Your task to perform on an android device: add a contact in the contacts app Image 0: 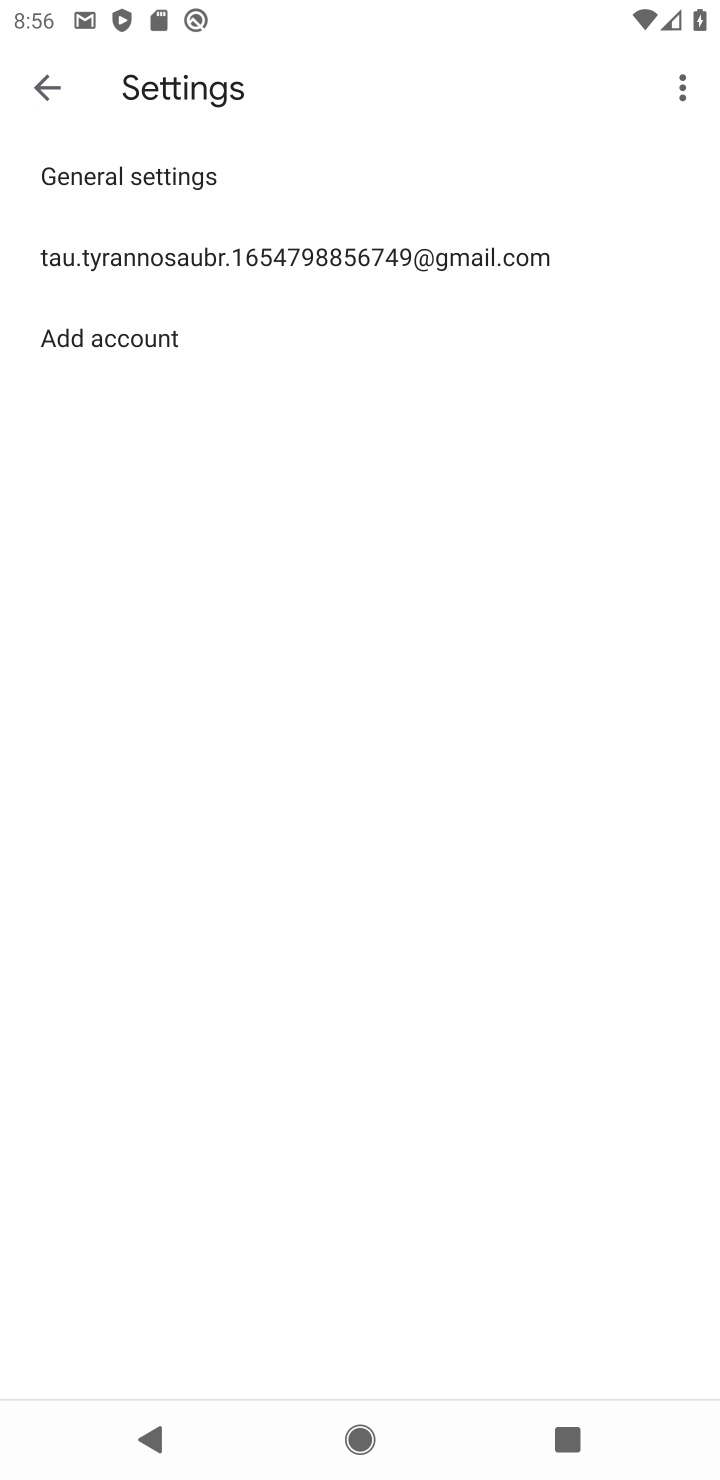
Step 0: press home button
Your task to perform on an android device: add a contact in the contacts app Image 1: 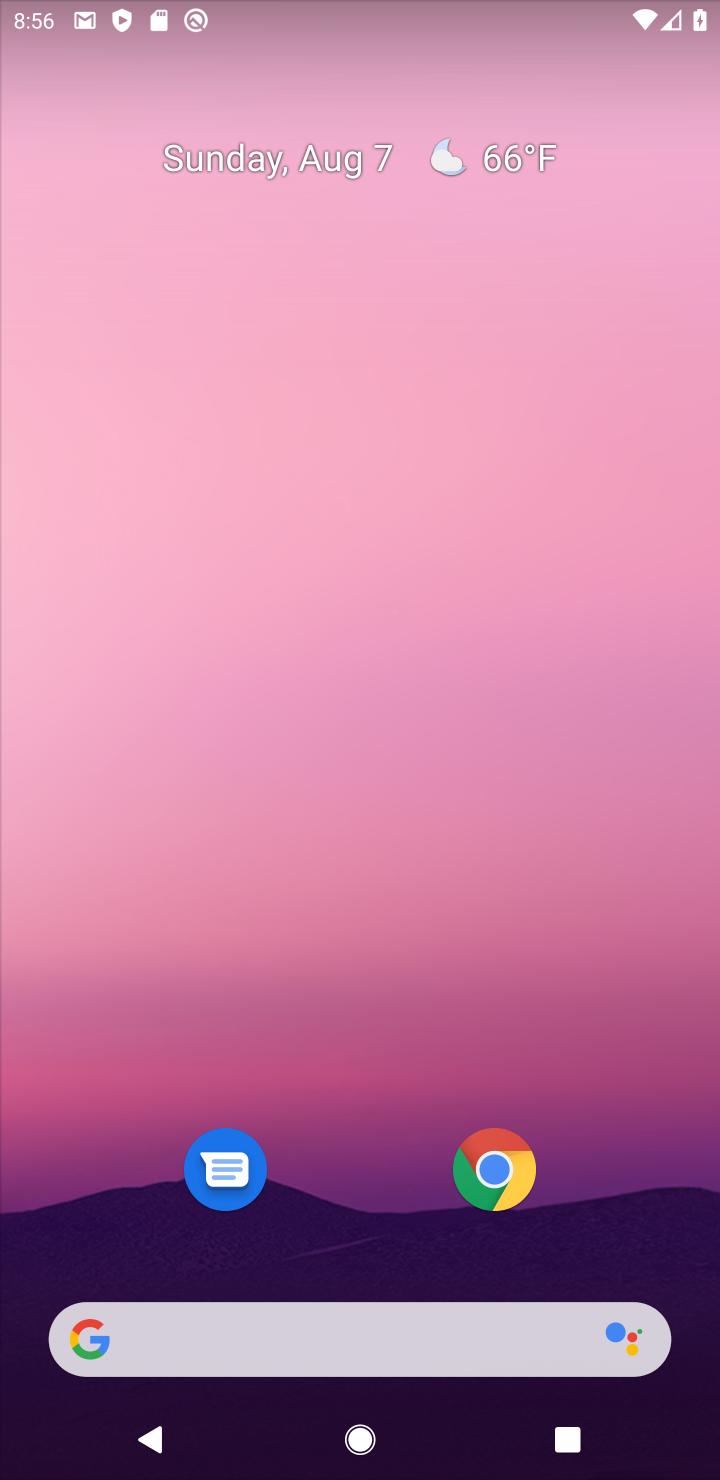
Step 1: drag from (278, 845) to (302, 10)
Your task to perform on an android device: add a contact in the contacts app Image 2: 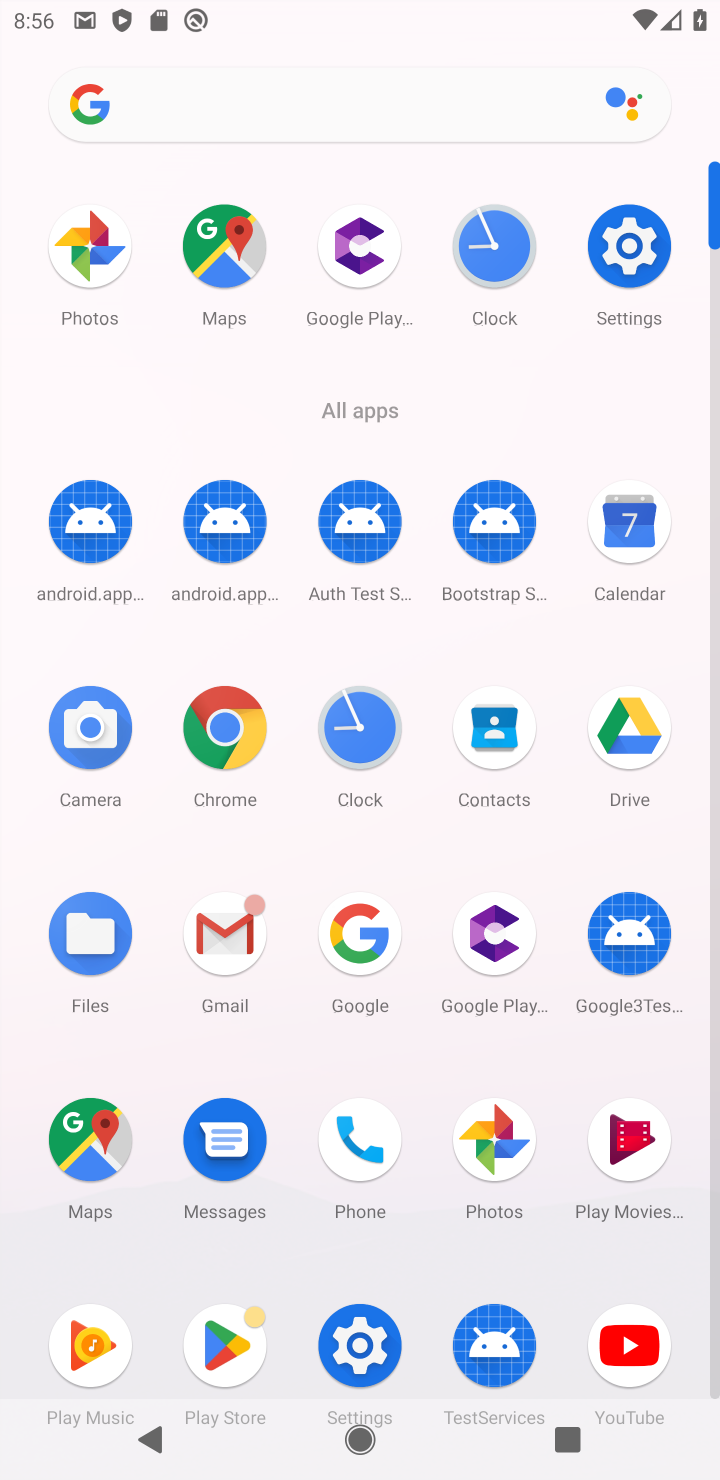
Step 2: click (344, 1094)
Your task to perform on an android device: add a contact in the contacts app Image 3: 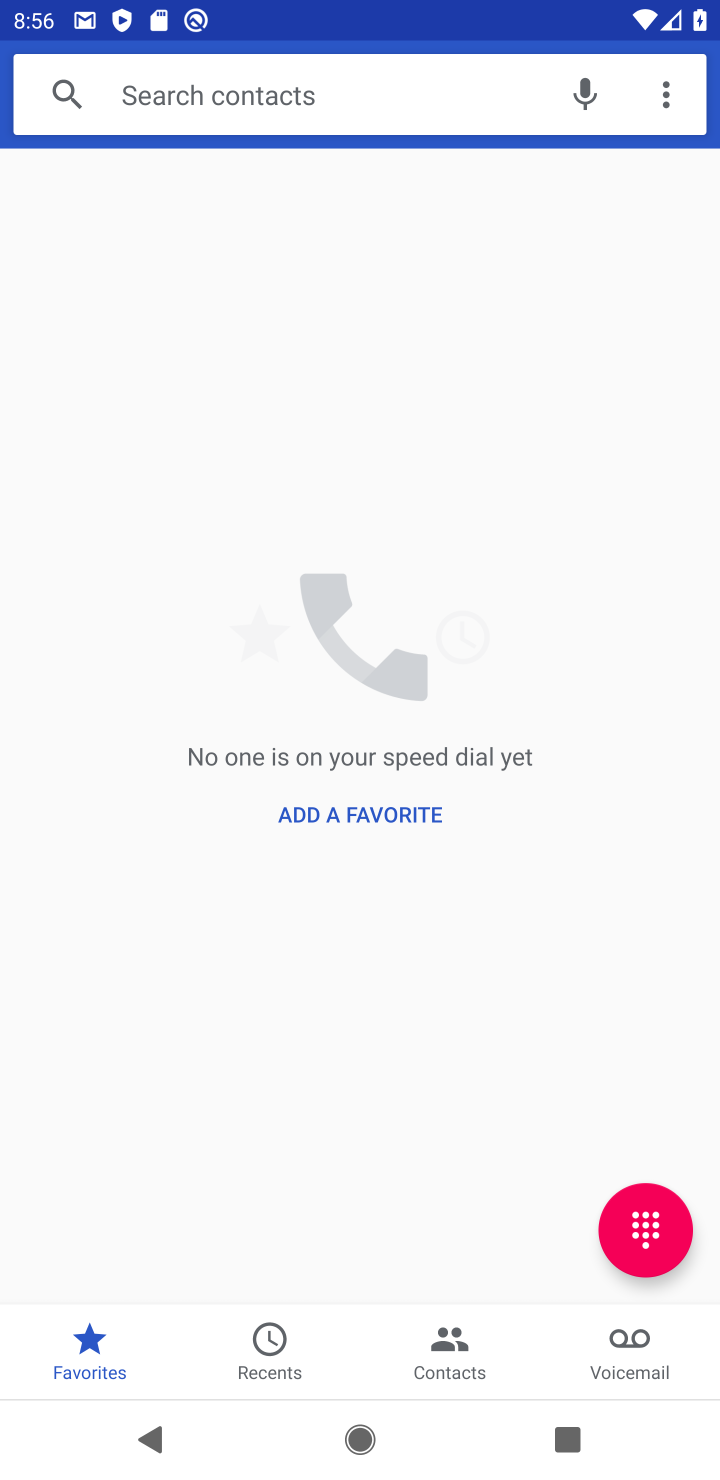
Step 3: click (445, 1367)
Your task to perform on an android device: add a contact in the contacts app Image 4: 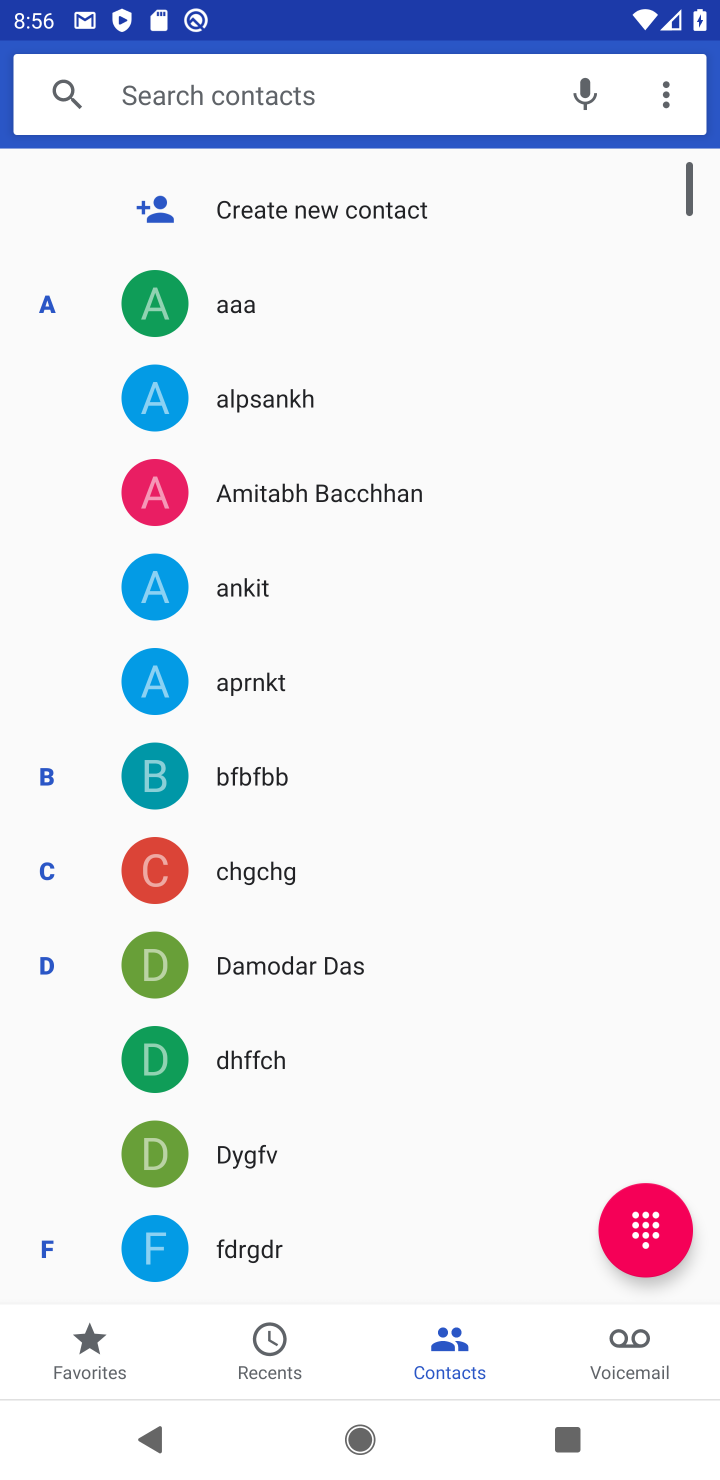
Step 4: click (239, 193)
Your task to perform on an android device: add a contact in the contacts app Image 5: 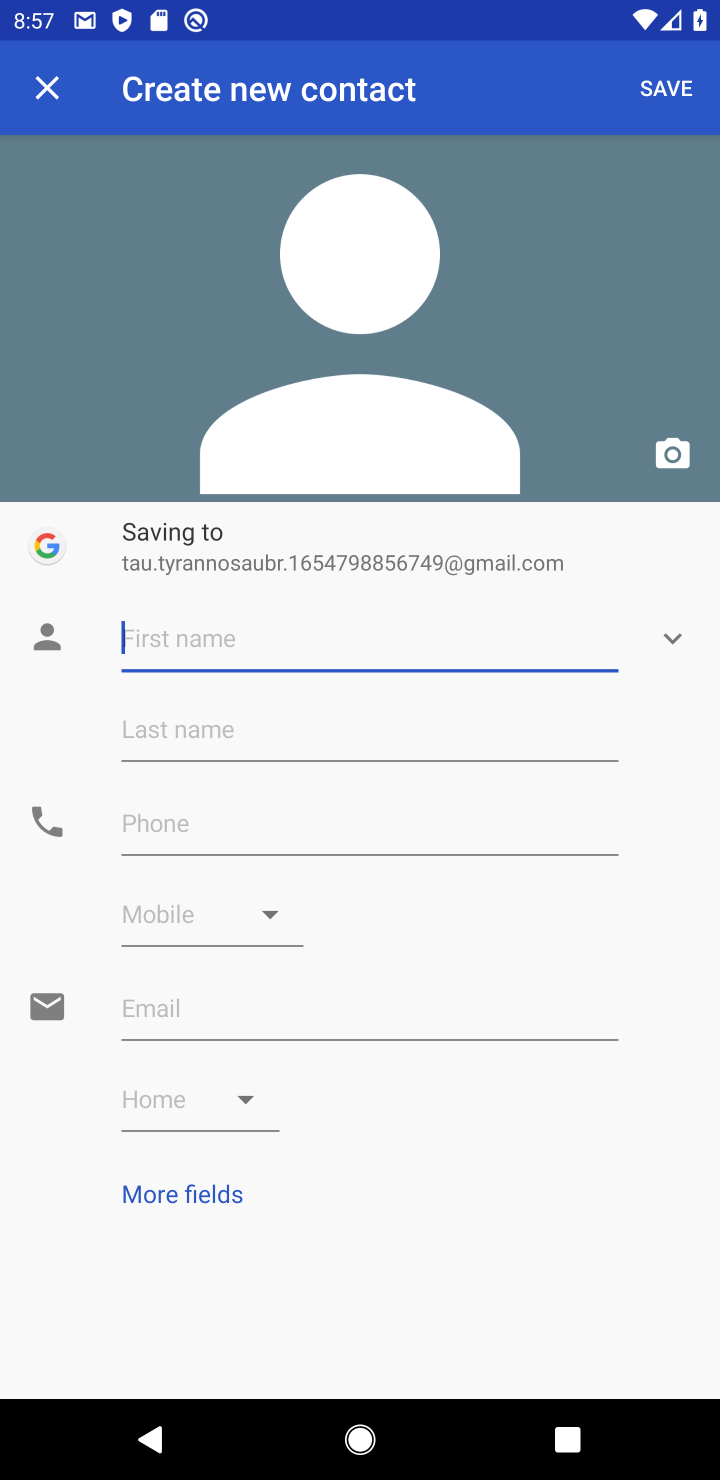
Step 5: type " the "
Your task to perform on an android device: add a contact in the contacts app Image 6: 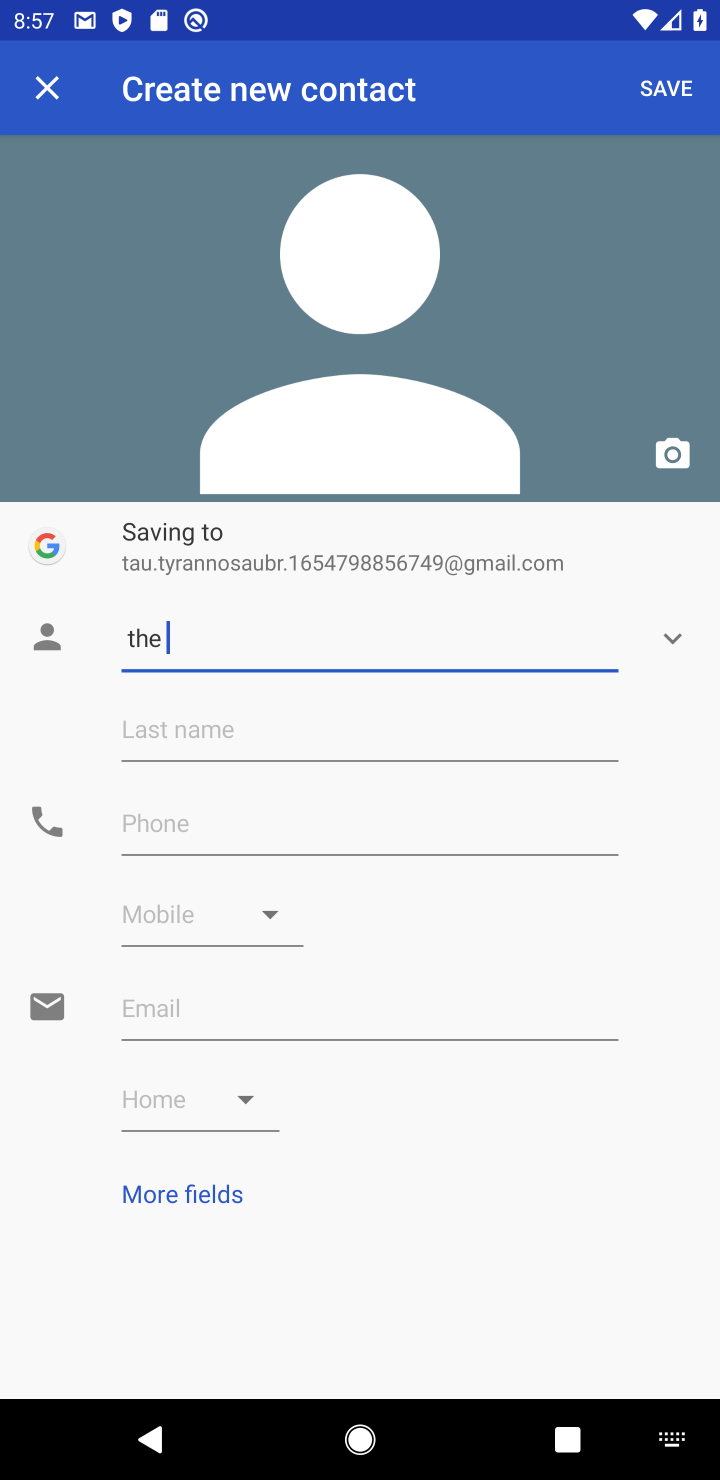
Step 6: click (157, 811)
Your task to perform on an android device: add a contact in the contacts app Image 7: 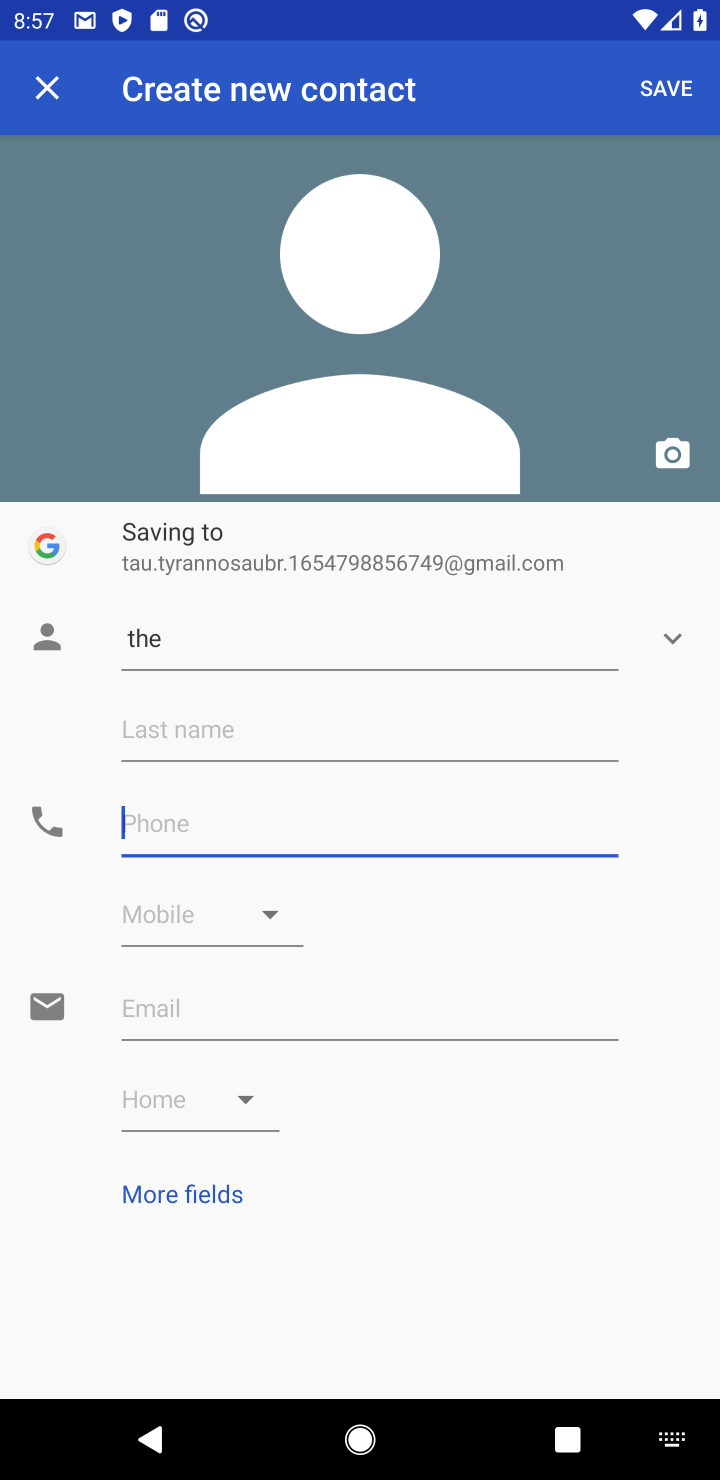
Step 7: type ""
Your task to perform on an android device: add a contact in the contacts app Image 8: 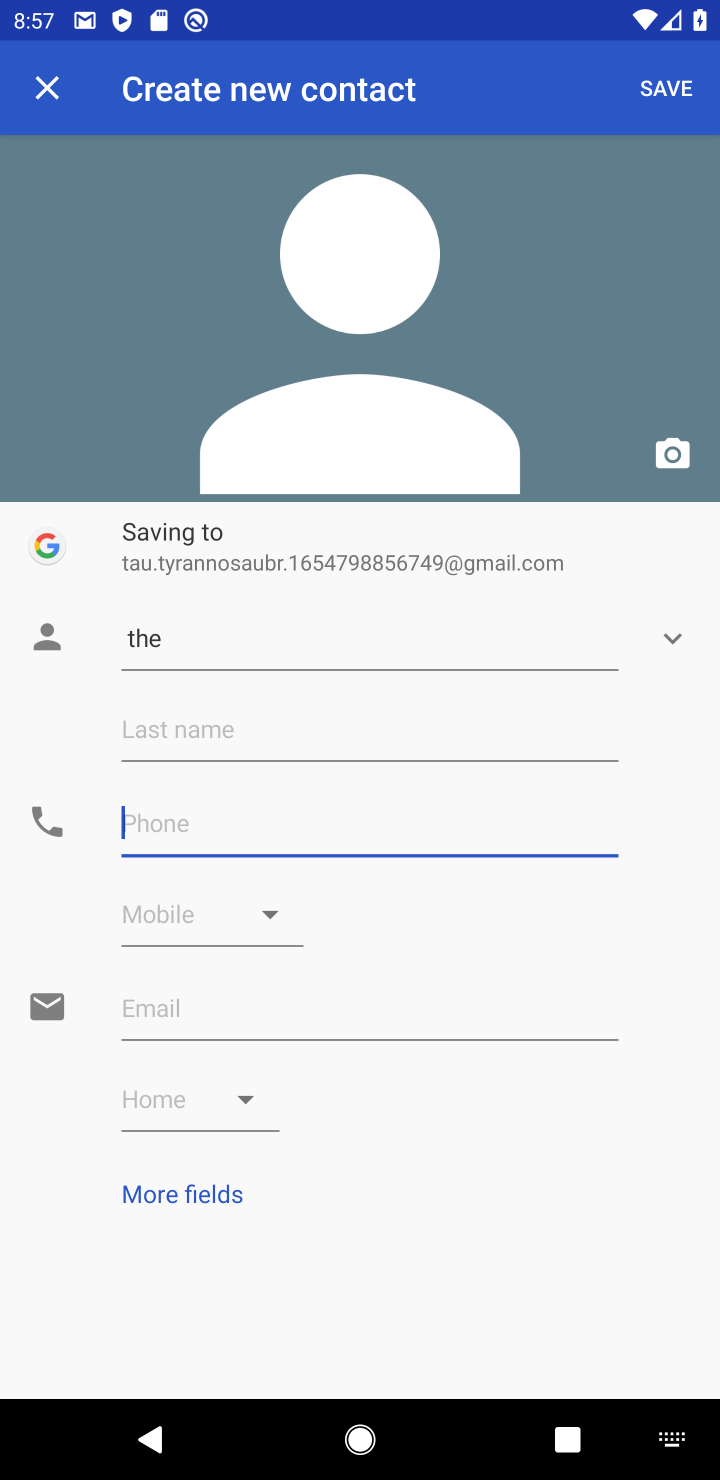
Step 8: type ""
Your task to perform on an android device: add a contact in the contacts app Image 9: 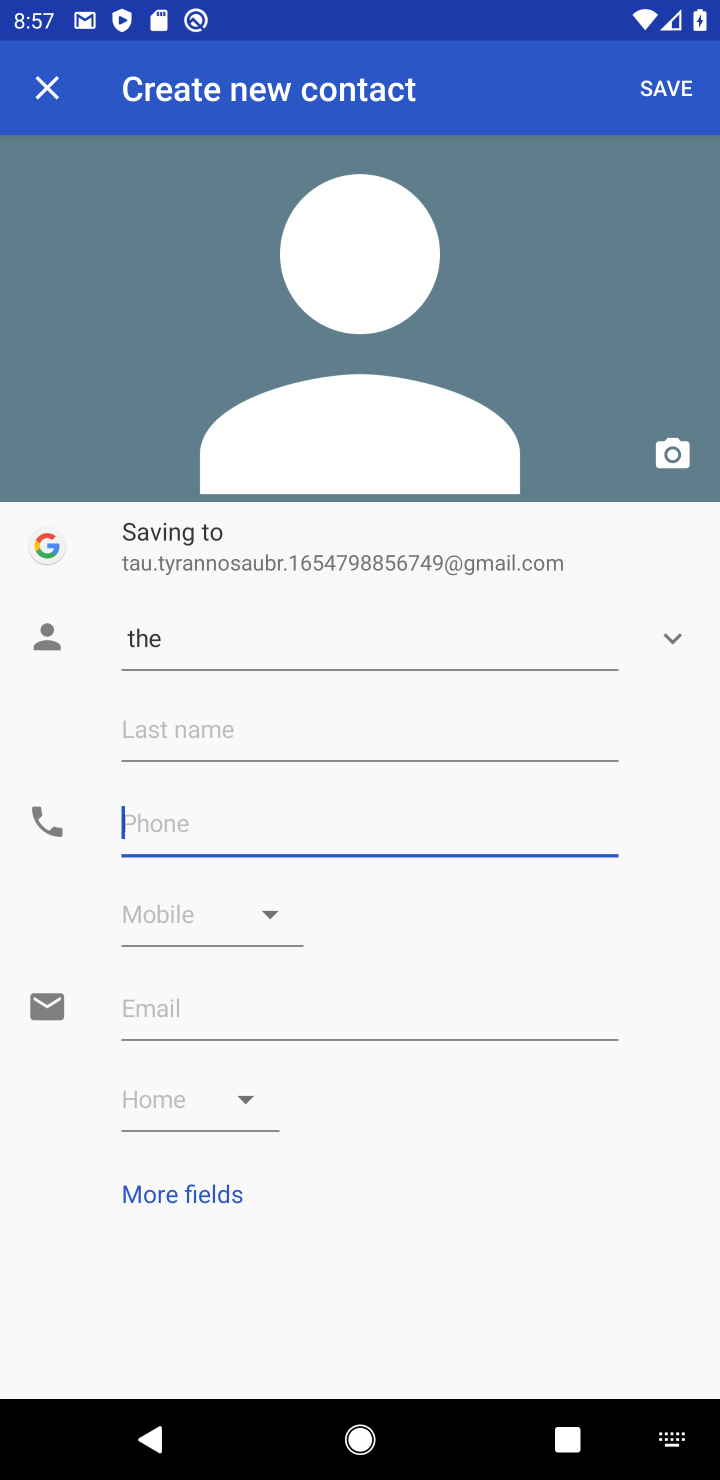
Step 9: click (653, 83)
Your task to perform on an android device: add a contact in the contacts app Image 10: 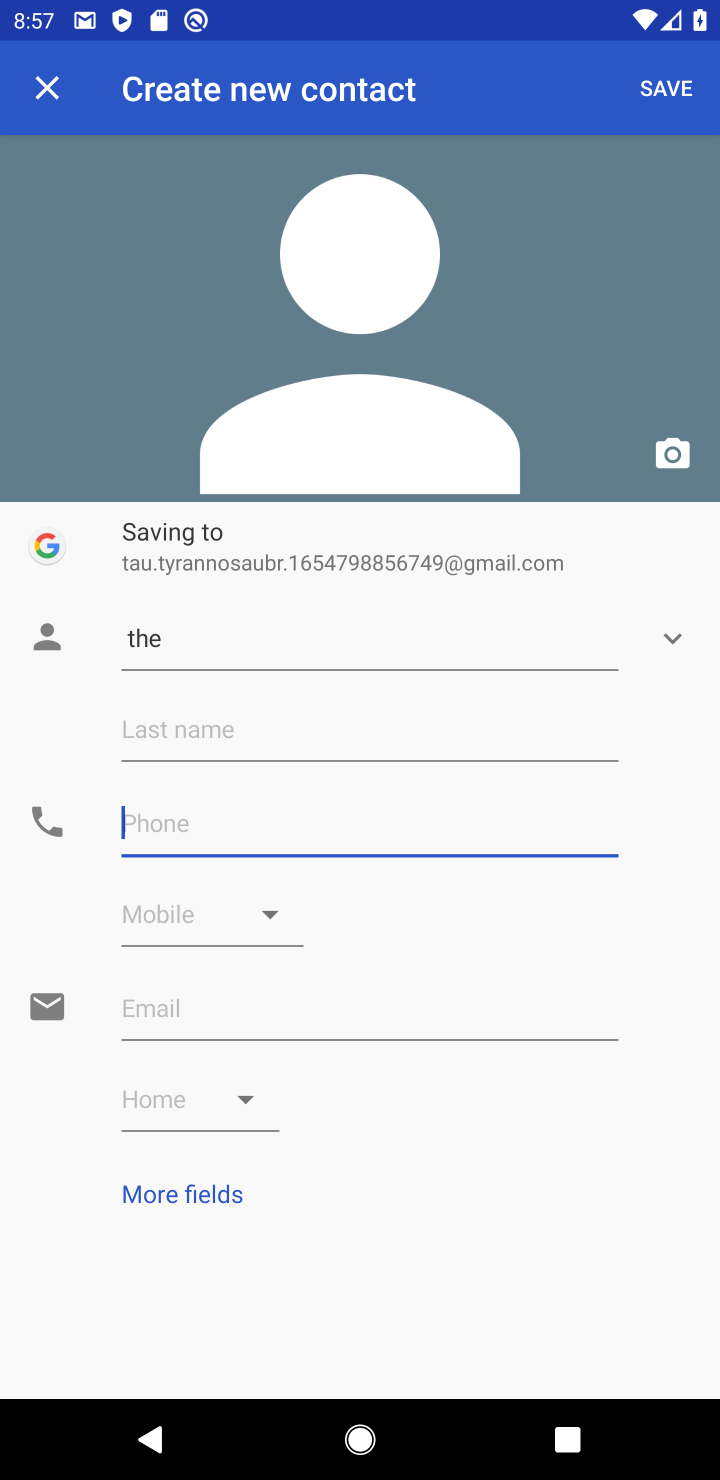
Step 10: task complete